Your task to perform on an android device: Open the calendar and show me this week's events Image 0: 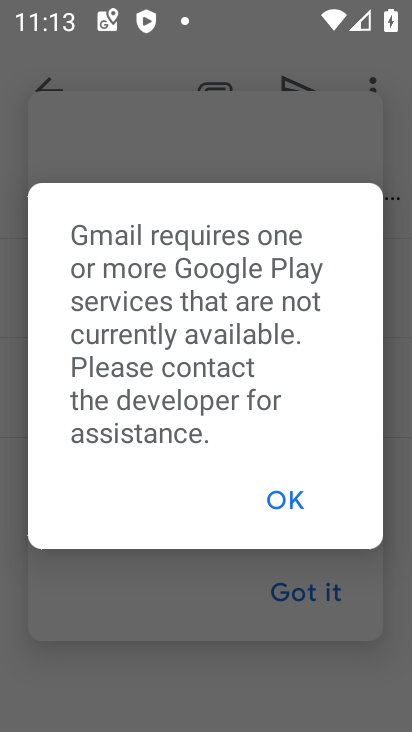
Step 0: press home button
Your task to perform on an android device: Open the calendar and show me this week's events Image 1: 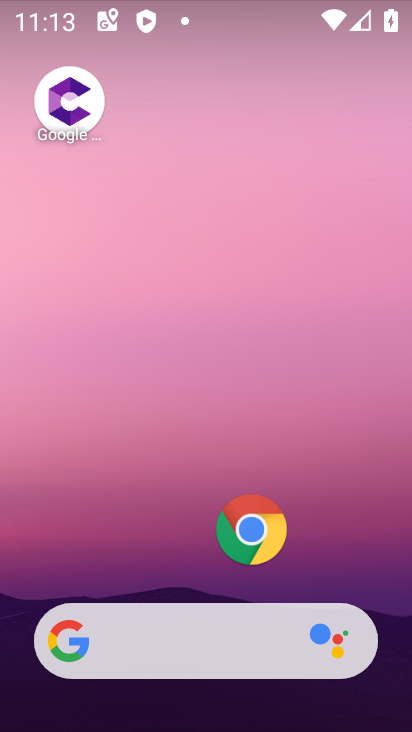
Step 1: drag from (133, 567) to (166, 4)
Your task to perform on an android device: Open the calendar and show me this week's events Image 2: 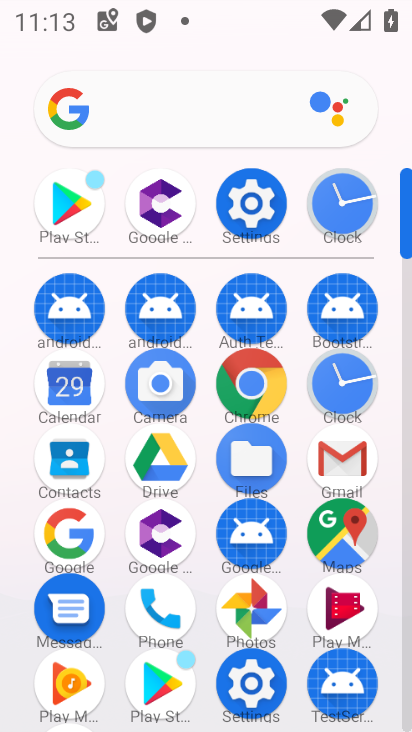
Step 2: click (82, 392)
Your task to perform on an android device: Open the calendar and show me this week's events Image 3: 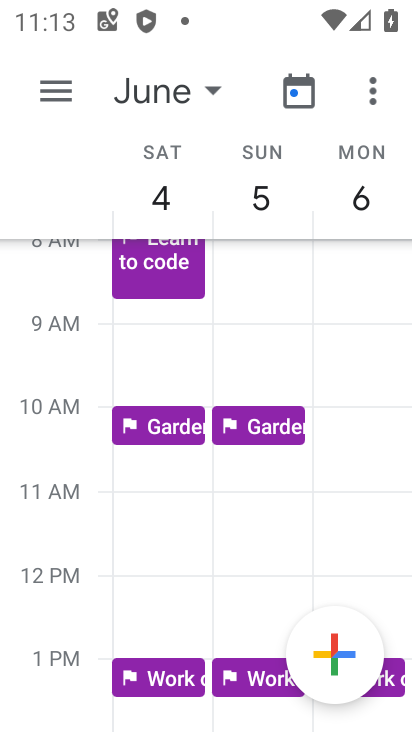
Step 3: click (52, 81)
Your task to perform on an android device: Open the calendar and show me this week's events Image 4: 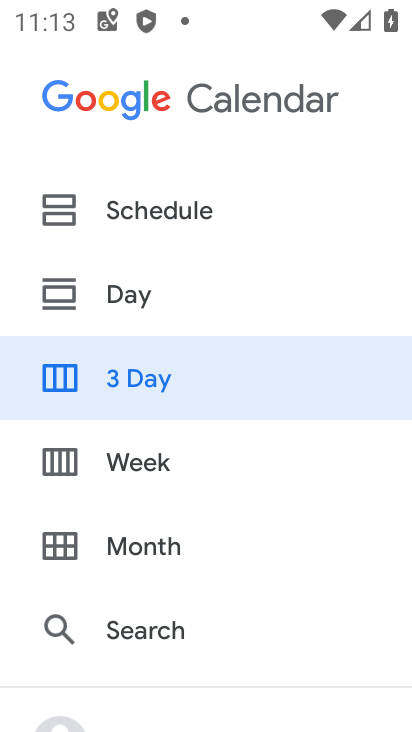
Step 4: drag from (165, 474) to (303, 2)
Your task to perform on an android device: Open the calendar and show me this week's events Image 5: 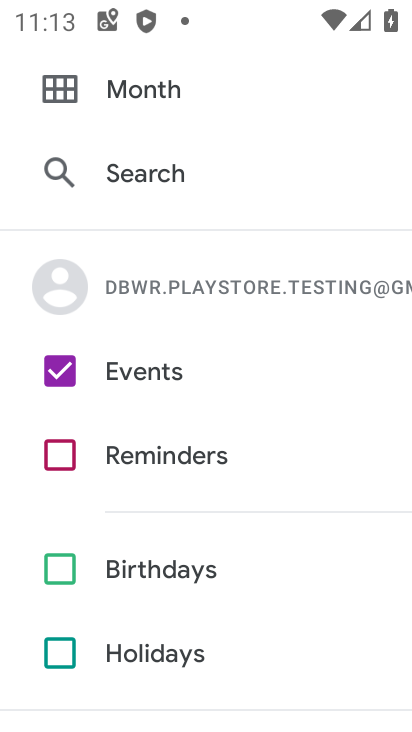
Step 5: drag from (218, 541) to (251, 28)
Your task to perform on an android device: Open the calendar and show me this week's events Image 6: 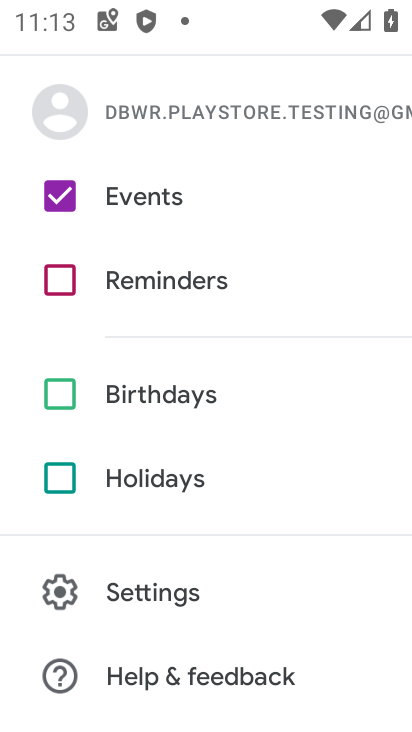
Step 6: drag from (220, 129) to (191, 725)
Your task to perform on an android device: Open the calendar and show me this week's events Image 7: 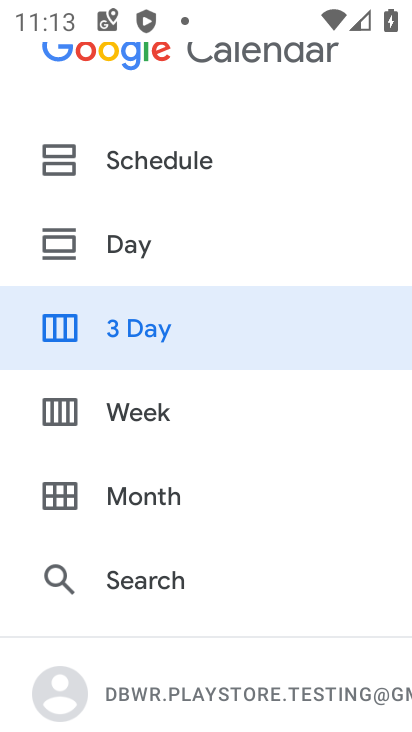
Step 7: click (176, 428)
Your task to perform on an android device: Open the calendar and show me this week's events Image 8: 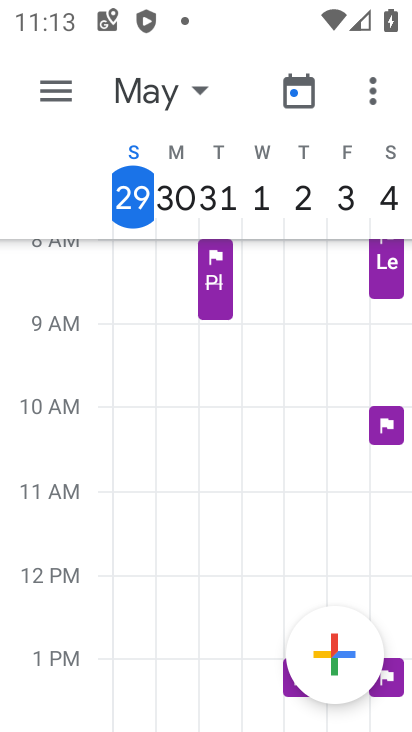
Step 8: task complete